Your task to perform on an android device: Set the phone to "Do not disturb". Image 0: 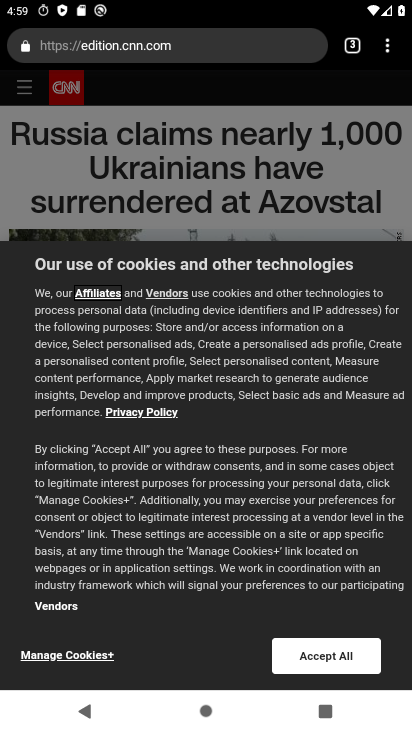
Step 0: press home button
Your task to perform on an android device: Set the phone to "Do not disturb". Image 1: 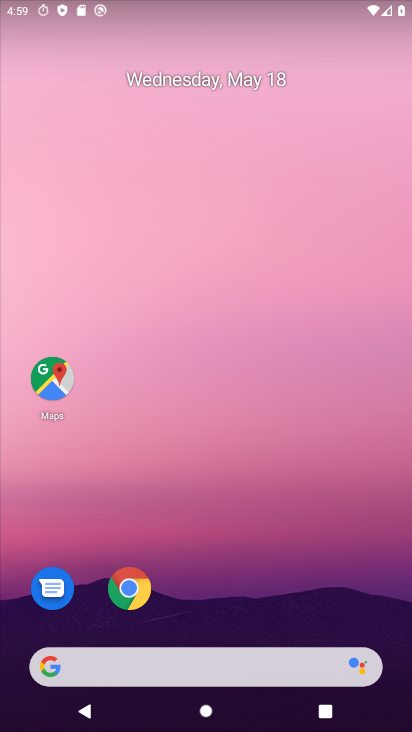
Step 1: drag from (291, 5) to (258, 516)
Your task to perform on an android device: Set the phone to "Do not disturb". Image 2: 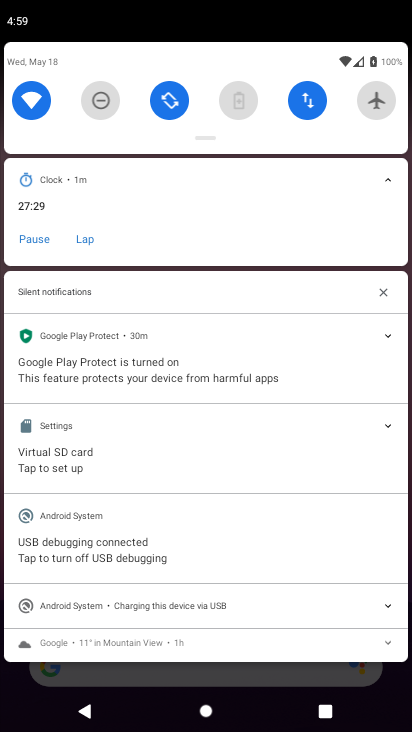
Step 2: drag from (204, 117) to (161, 572)
Your task to perform on an android device: Set the phone to "Do not disturb". Image 3: 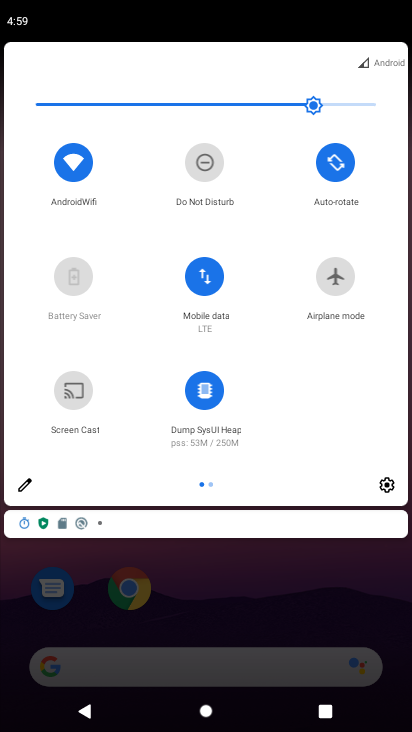
Step 3: click (202, 166)
Your task to perform on an android device: Set the phone to "Do not disturb". Image 4: 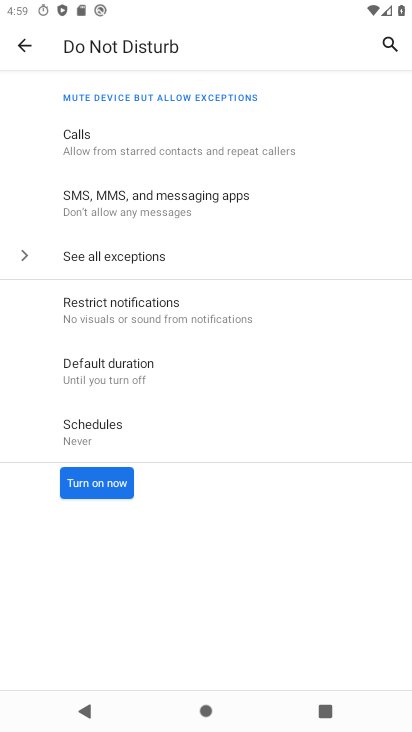
Step 4: click (110, 477)
Your task to perform on an android device: Set the phone to "Do not disturb". Image 5: 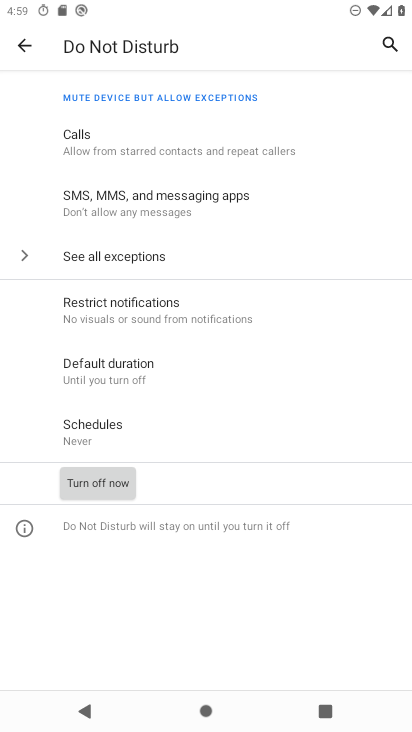
Step 5: task complete